Your task to perform on an android device: Open the calendar and show me this week's events? Image 0: 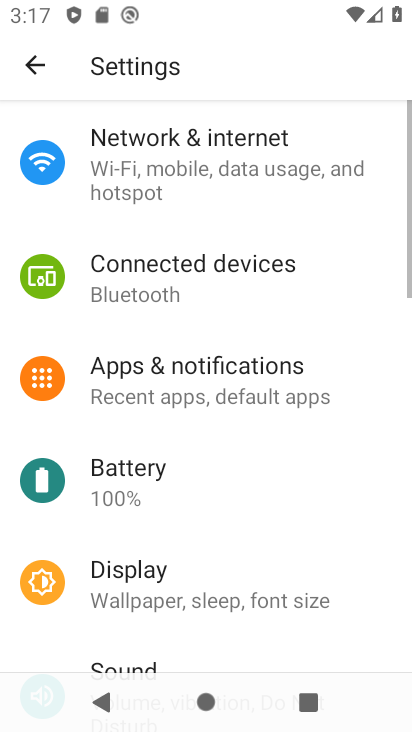
Step 0: press home button
Your task to perform on an android device: Open the calendar and show me this week's events? Image 1: 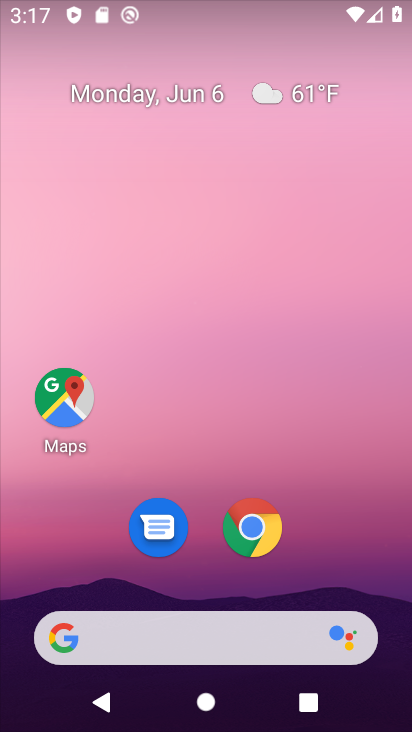
Step 1: drag from (314, 472) to (266, 33)
Your task to perform on an android device: Open the calendar and show me this week's events? Image 2: 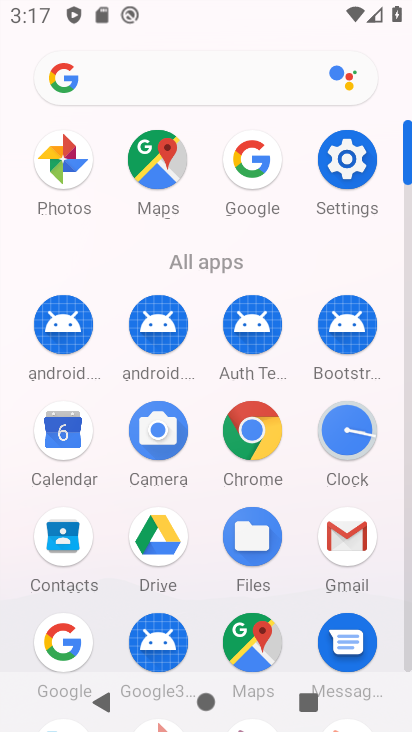
Step 2: click (63, 433)
Your task to perform on an android device: Open the calendar and show me this week's events? Image 3: 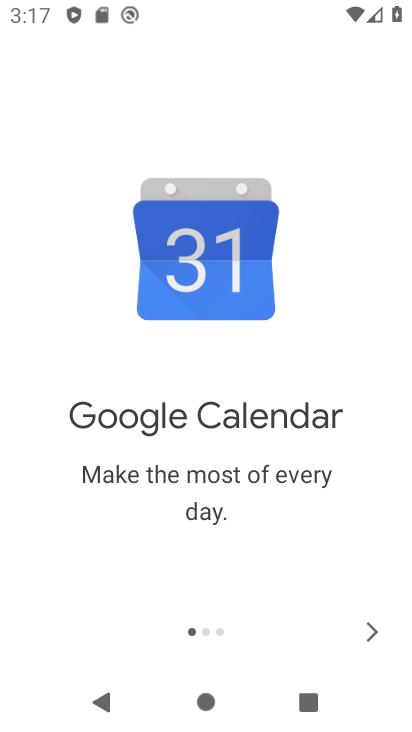
Step 3: click (372, 635)
Your task to perform on an android device: Open the calendar and show me this week's events? Image 4: 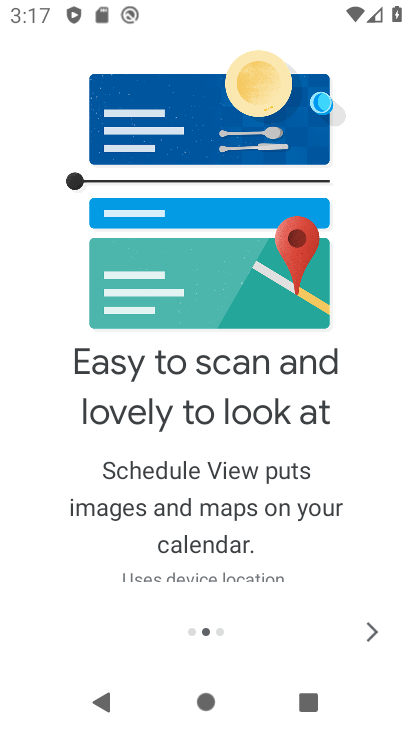
Step 4: click (372, 635)
Your task to perform on an android device: Open the calendar and show me this week's events? Image 5: 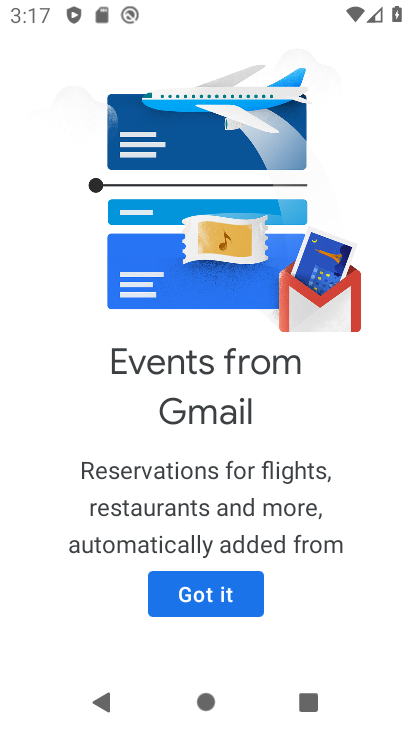
Step 5: click (202, 589)
Your task to perform on an android device: Open the calendar and show me this week's events? Image 6: 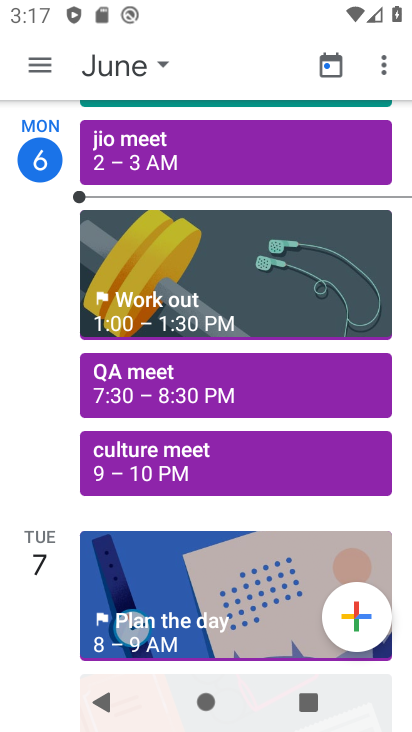
Step 6: click (39, 65)
Your task to perform on an android device: Open the calendar and show me this week's events? Image 7: 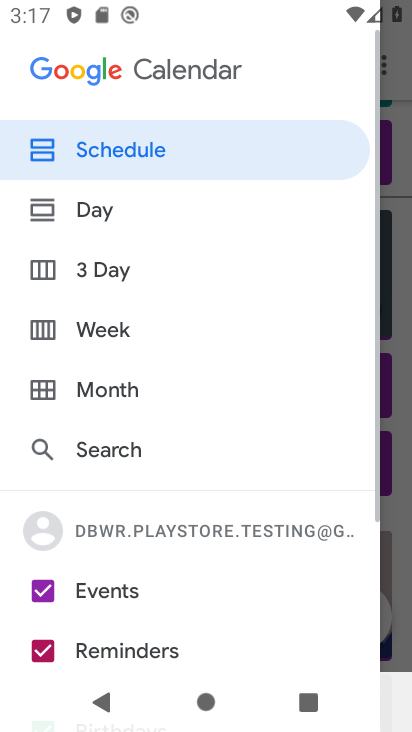
Step 7: click (108, 155)
Your task to perform on an android device: Open the calendar and show me this week's events? Image 8: 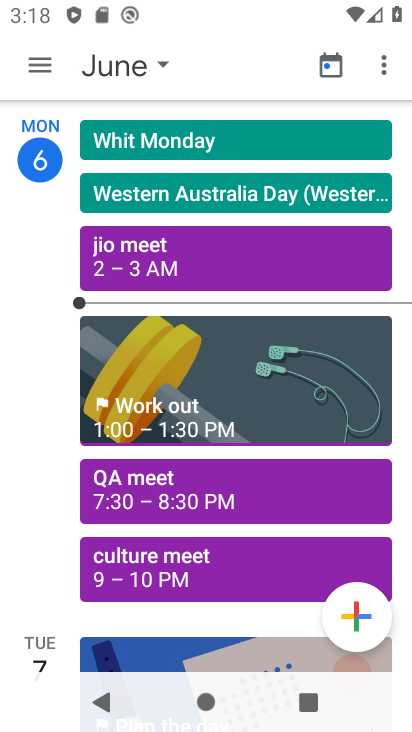
Step 8: task complete